Your task to perform on an android device: Open Wikipedia Image 0: 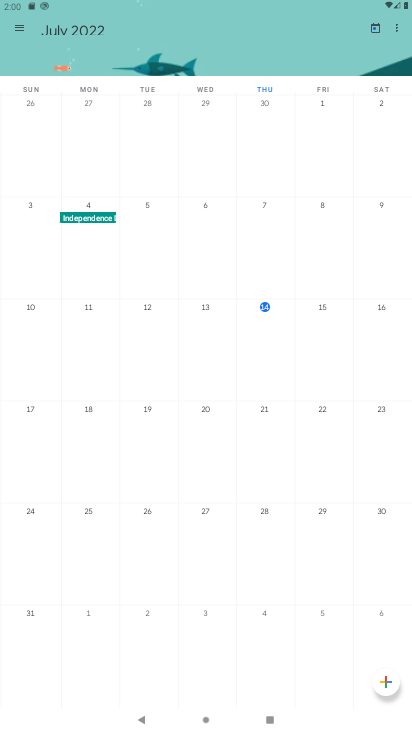
Step 0: press home button
Your task to perform on an android device: Open Wikipedia Image 1: 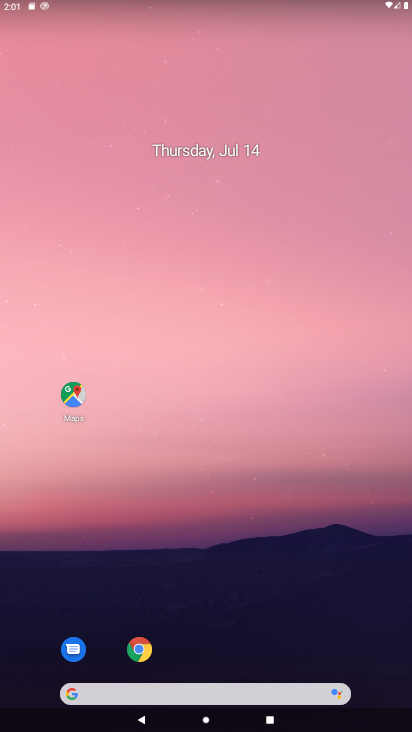
Step 1: click (153, 666)
Your task to perform on an android device: Open Wikipedia Image 2: 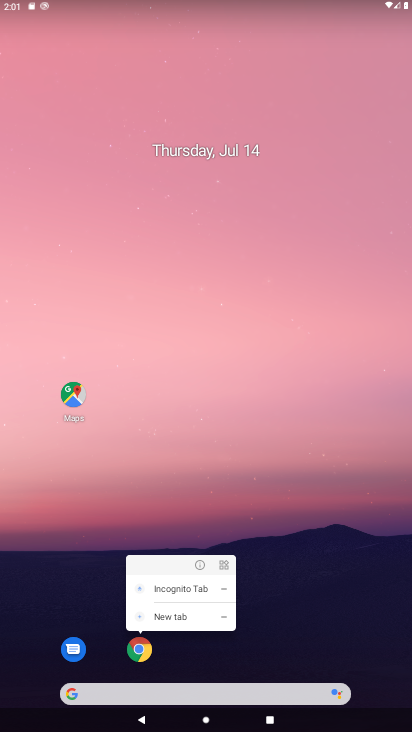
Step 2: click (153, 666)
Your task to perform on an android device: Open Wikipedia Image 3: 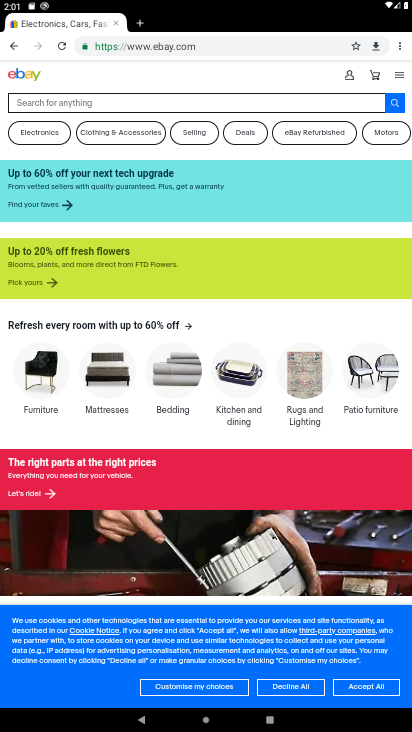
Step 3: click (201, 45)
Your task to perform on an android device: Open Wikipedia Image 4: 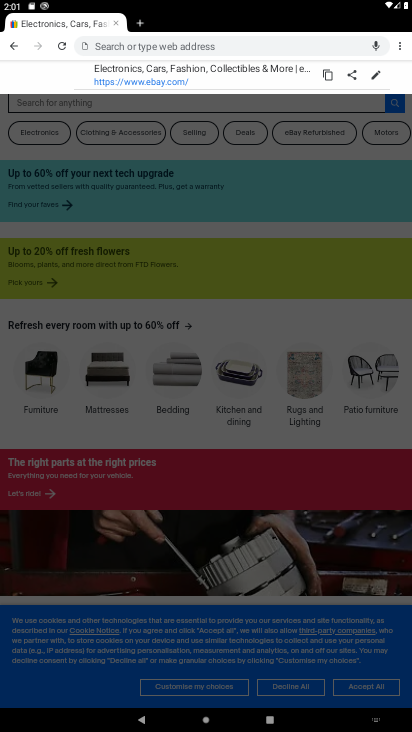
Step 4: type "Wikipedia"
Your task to perform on an android device: Open Wikipedia Image 5: 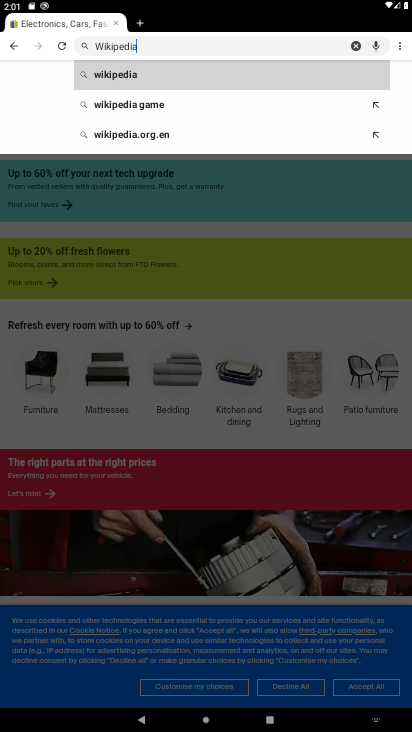
Step 5: type ""
Your task to perform on an android device: Open Wikipedia Image 6: 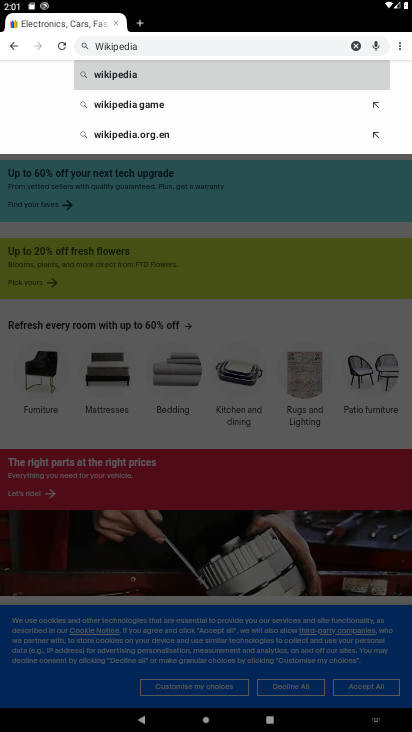
Step 6: click (332, 72)
Your task to perform on an android device: Open Wikipedia Image 7: 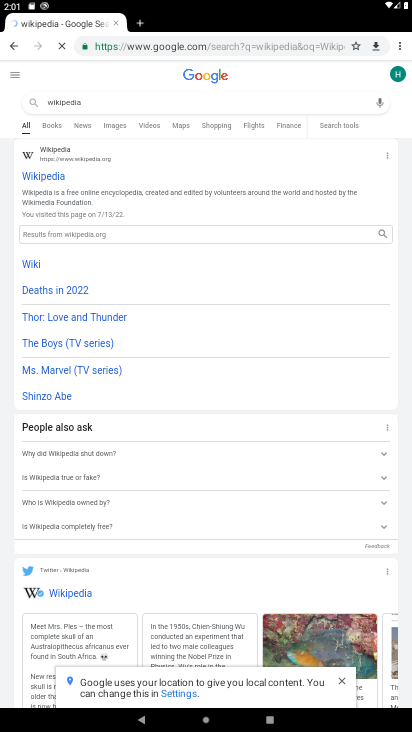
Step 7: task complete